Your task to perform on an android device: open app "TextNow: Call + Text Unlimited" (install if not already installed) Image 0: 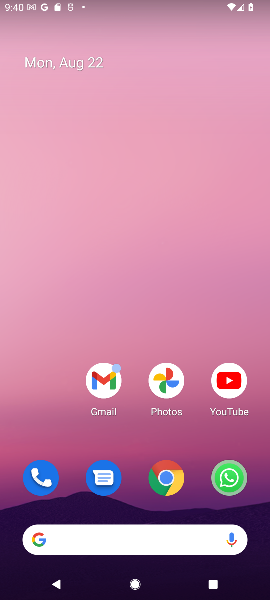
Step 0: drag from (138, 513) to (134, 95)
Your task to perform on an android device: open app "TextNow: Call + Text Unlimited" (install if not already installed) Image 1: 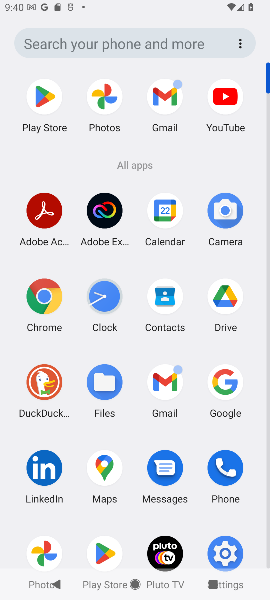
Step 1: click (45, 111)
Your task to perform on an android device: open app "TextNow: Call + Text Unlimited" (install if not already installed) Image 2: 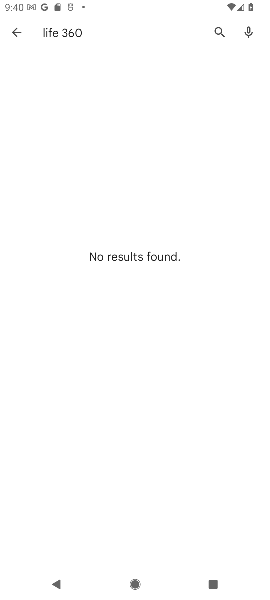
Step 2: click (221, 35)
Your task to perform on an android device: open app "TextNow: Call + Text Unlimited" (install if not already installed) Image 3: 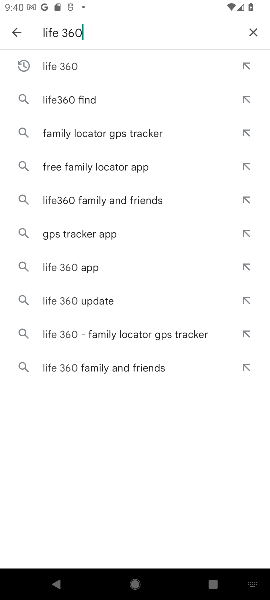
Step 3: click (241, 35)
Your task to perform on an android device: open app "TextNow: Call + Text Unlimited" (install if not already installed) Image 4: 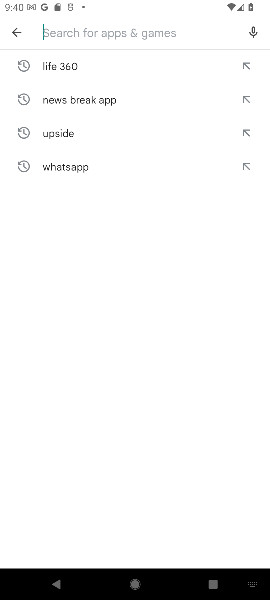
Step 4: type "text now"
Your task to perform on an android device: open app "TextNow: Call + Text Unlimited" (install if not already installed) Image 5: 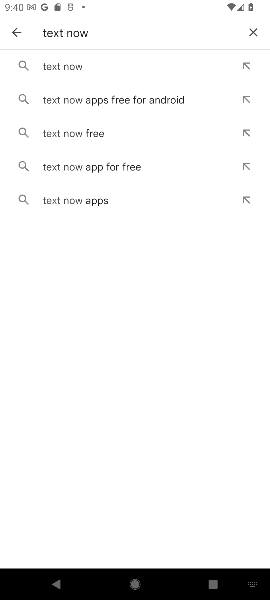
Step 5: click (67, 75)
Your task to perform on an android device: open app "TextNow: Call + Text Unlimited" (install if not already installed) Image 6: 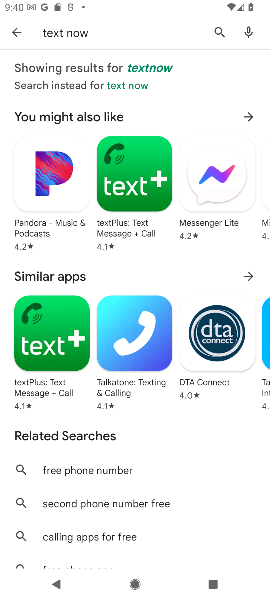
Step 6: task complete